Your task to perform on an android device: change notification settings in the gmail app Image 0: 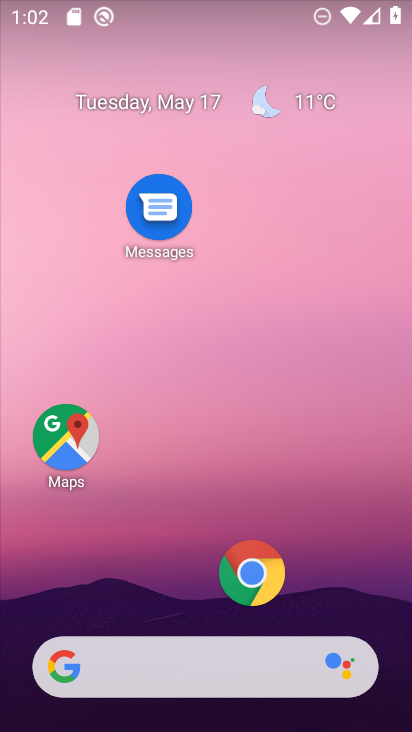
Step 0: drag from (201, 610) to (203, 129)
Your task to perform on an android device: change notification settings in the gmail app Image 1: 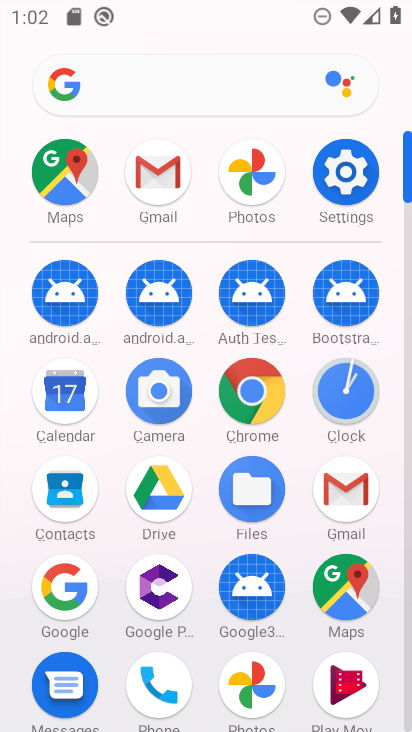
Step 1: click (154, 165)
Your task to perform on an android device: change notification settings in the gmail app Image 2: 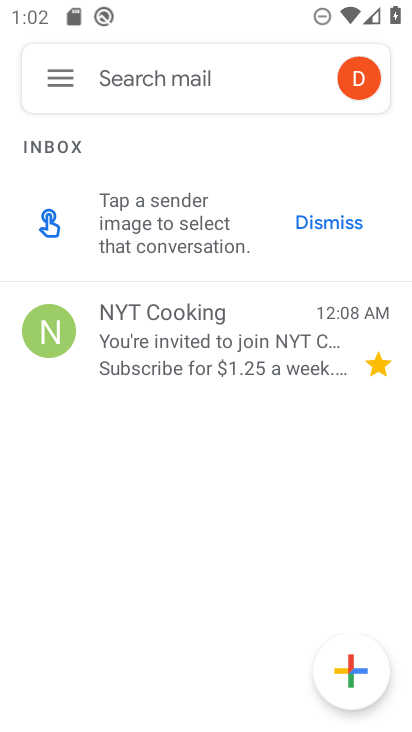
Step 2: click (54, 67)
Your task to perform on an android device: change notification settings in the gmail app Image 3: 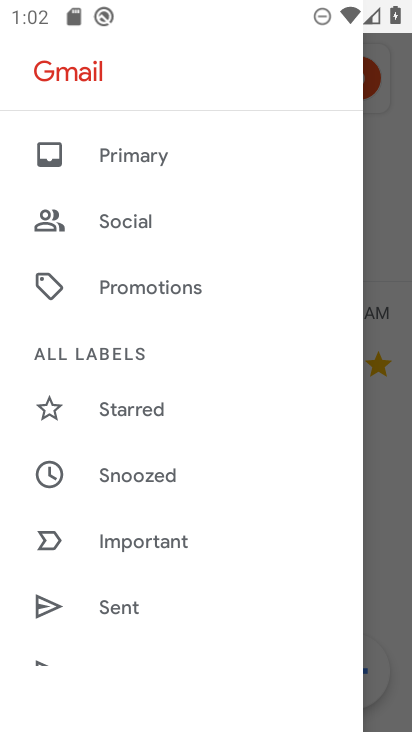
Step 3: drag from (149, 636) to (133, 99)
Your task to perform on an android device: change notification settings in the gmail app Image 4: 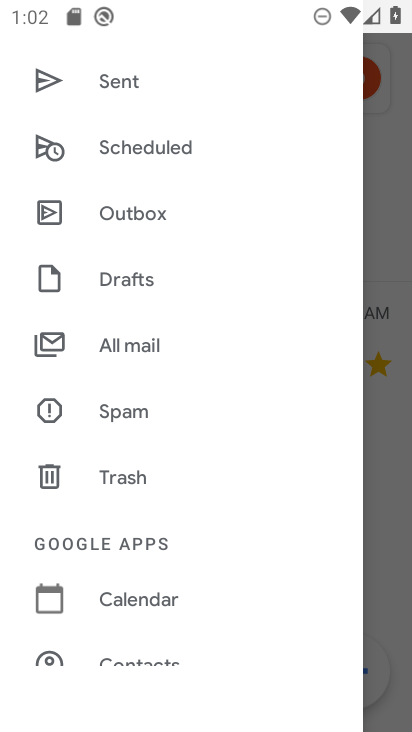
Step 4: drag from (171, 634) to (186, 67)
Your task to perform on an android device: change notification settings in the gmail app Image 5: 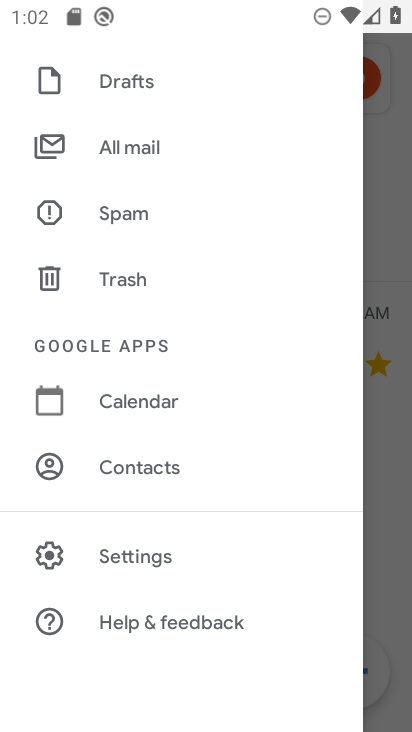
Step 5: click (178, 550)
Your task to perform on an android device: change notification settings in the gmail app Image 6: 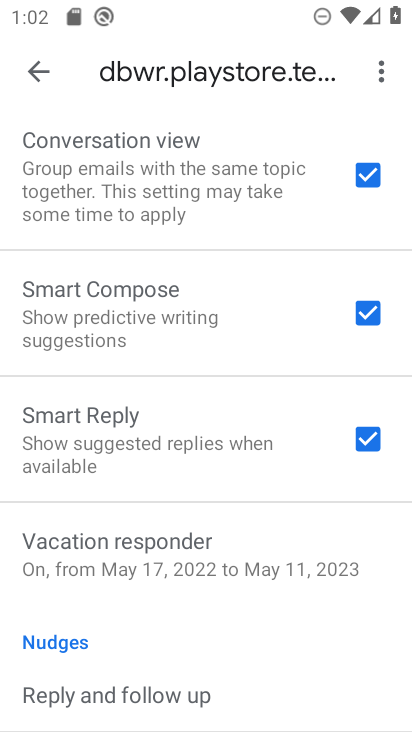
Step 6: click (43, 74)
Your task to perform on an android device: change notification settings in the gmail app Image 7: 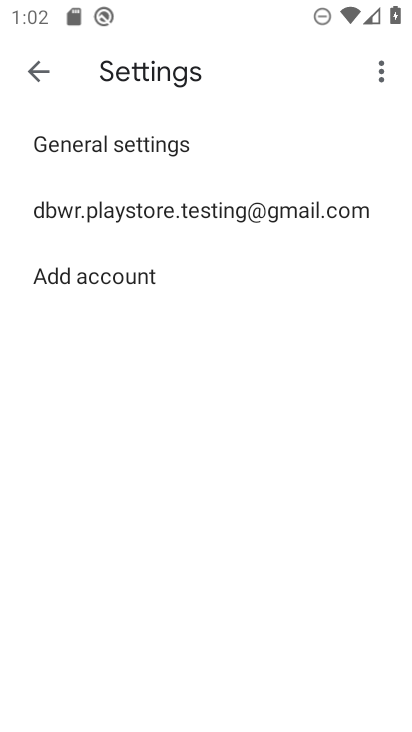
Step 7: click (196, 142)
Your task to perform on an android device: change notification settings in the gmail app Image 8: 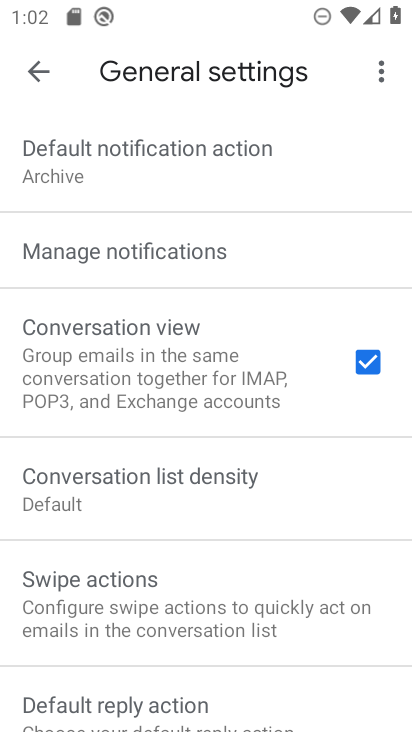
Step 8: click (241, 252)
Your task to perform on an android device: change notification settings in the gmail app Image 9: 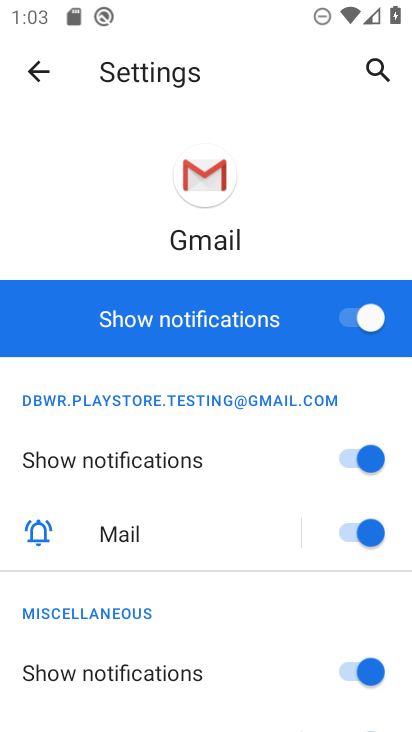
Step 9: click (355, 310)
Your task to perform on an android device: change notification settings in the gmail app Image 10: 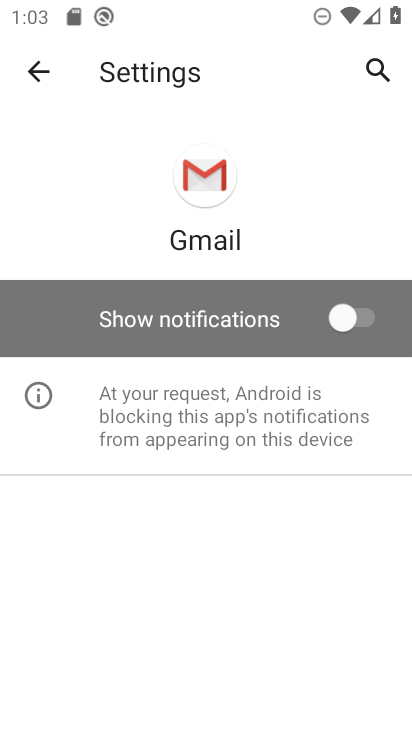
Step 10: task complete